Your task to perform on an android device: turn vacation reply on in the gmail app Image 0: 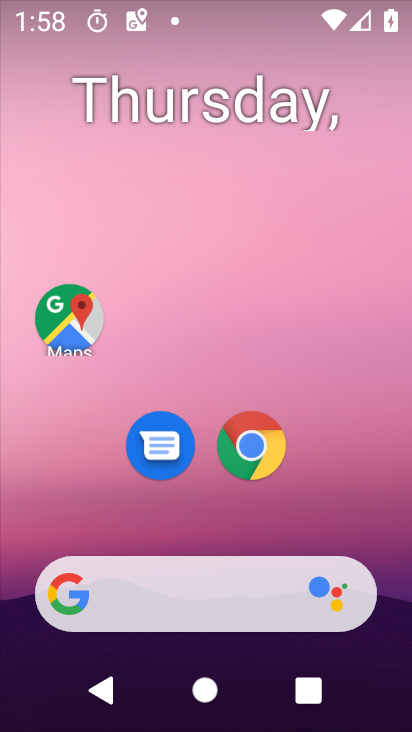
Step 0: click (250, 445)
Your task to perform on an android device: turn vacation reply on in the gmail app Image 1: 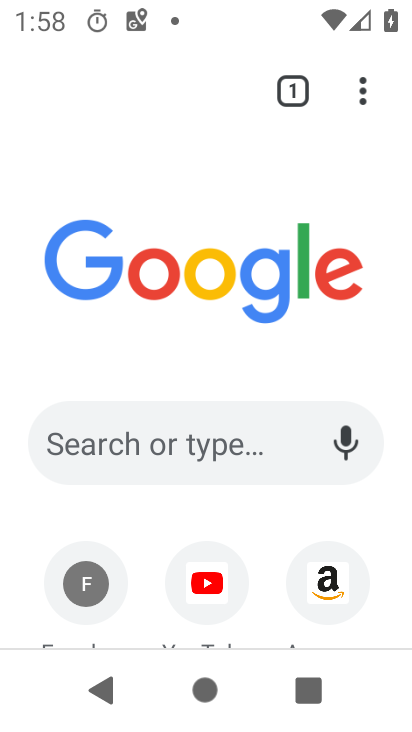
Step 1: click (357, 96)
Your task to perform on an android device: turn vacation reply on in the gmail app Image 2: 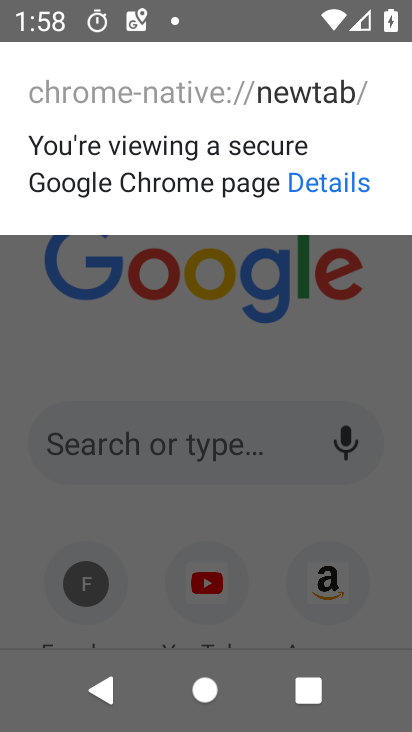
Step 2: task complete